Your task to perform on an android device: Search for Mexican restaurants on Maps Image 0: 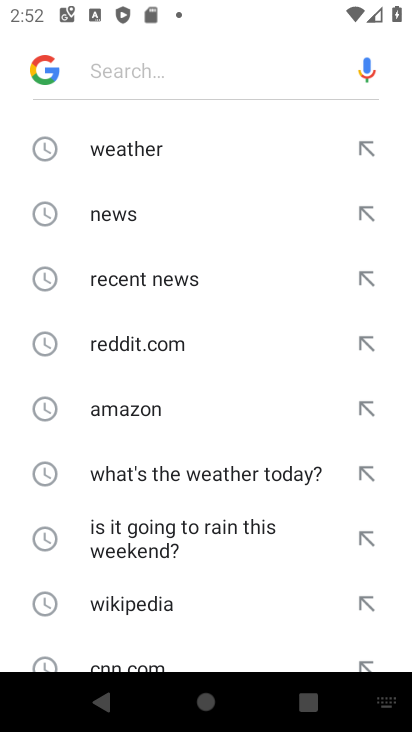
Step 0: press home button
Your task to perform on an android device: Search for Mexican restaurants on Maps Image 1: 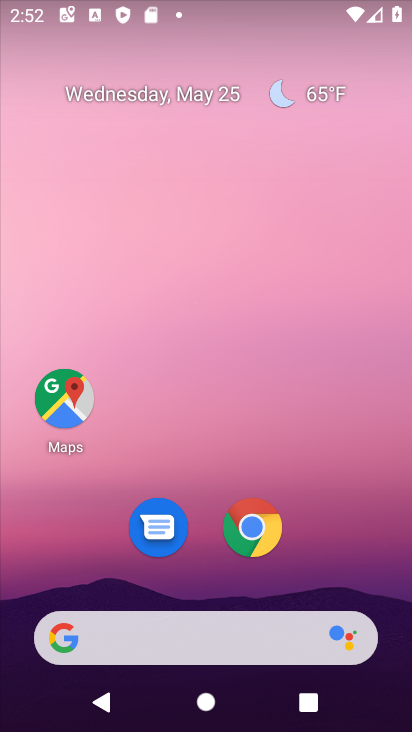
Step 1: drag from (262, 435) to (295, 57)
Your task to perform on an android device: Search for Mexican restaurants on Maps Image 2: 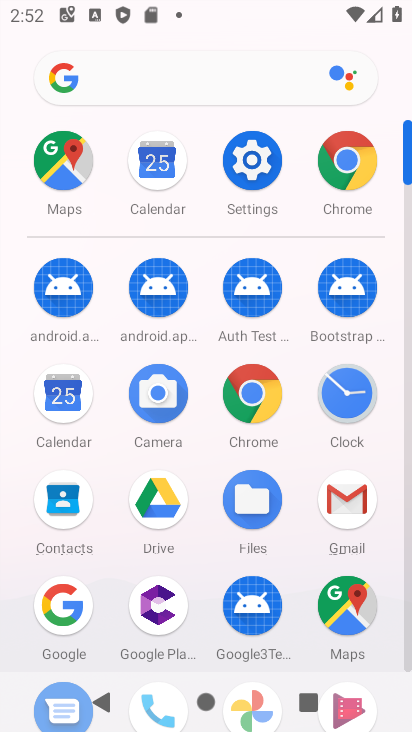
Step 2: click (341, 604)
Your task to perform on an android device: Search for Mexican restaurants on Maps Image 3: 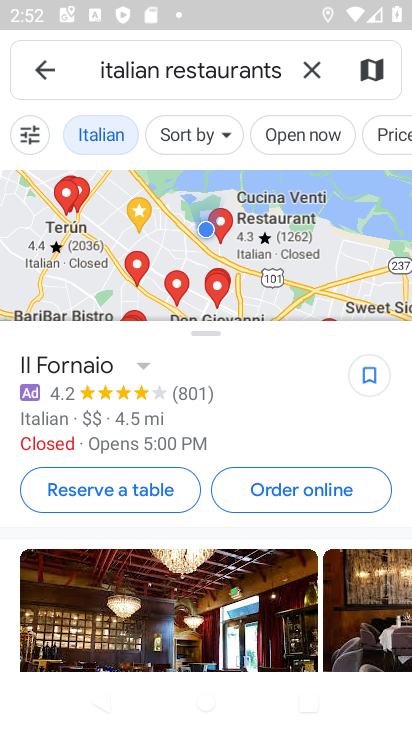
Step 3: press back button
Your task to perform on an android device: Search for Mexican restaurants on Maps Image 4: 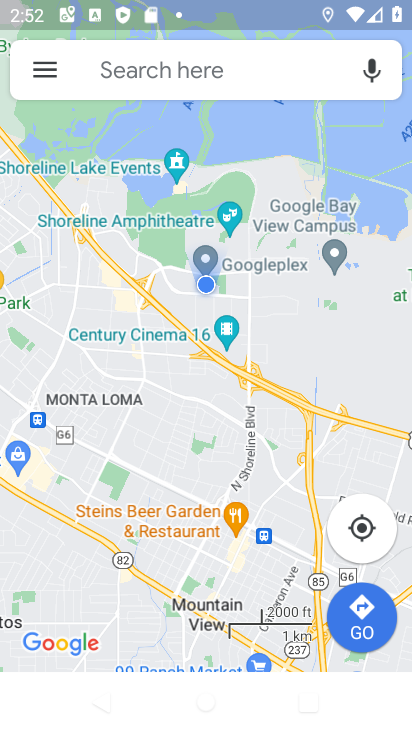
Step 4: click (162, 57)
Your task to perform on an android device: Search for Mexican restaurants on Maps Image 5: 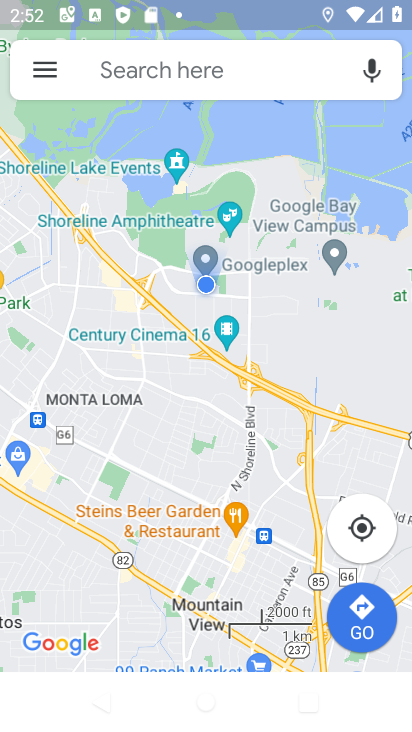
Step 5: click (162, 57)
Your task to perform on an android device: Search for Mexican restaurants on Maps Image 6: 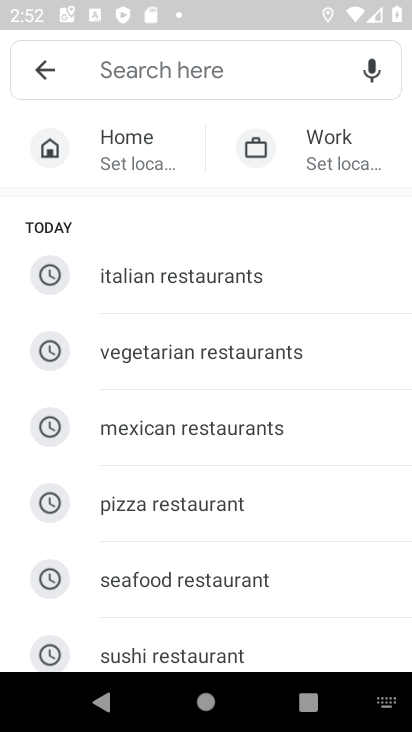
Step 6: click (181, 442)
Your task to perform on an android device: Search for Mexican restaurants on Maps Image 7: 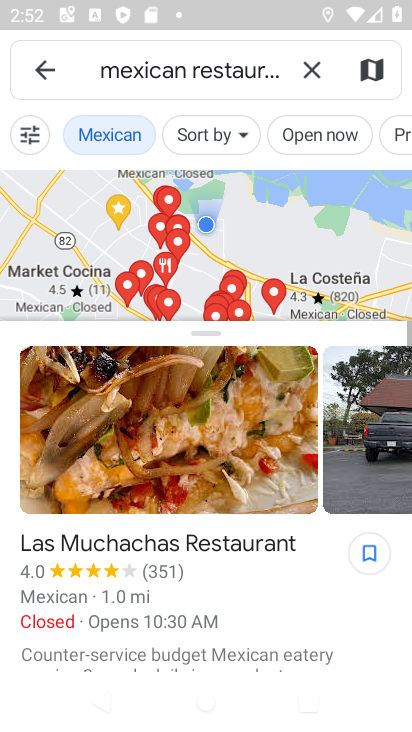
Step 7: task complete